Your task to perform on an android device: change the clock display to digital Image 0: 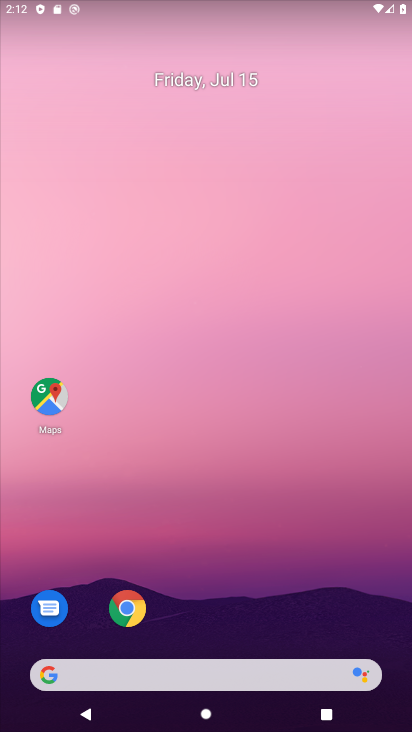
Step 0: drag from (279, 636) to (242, 0)
Your task to perform on an android device: change the clock display to digital Image 1: 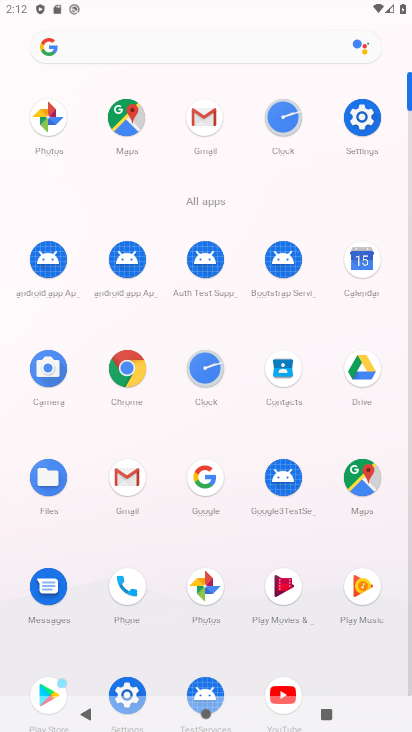
Step 1: click (281, 114)
Your task to perform on an android device: change the clock display to digital Image 2: 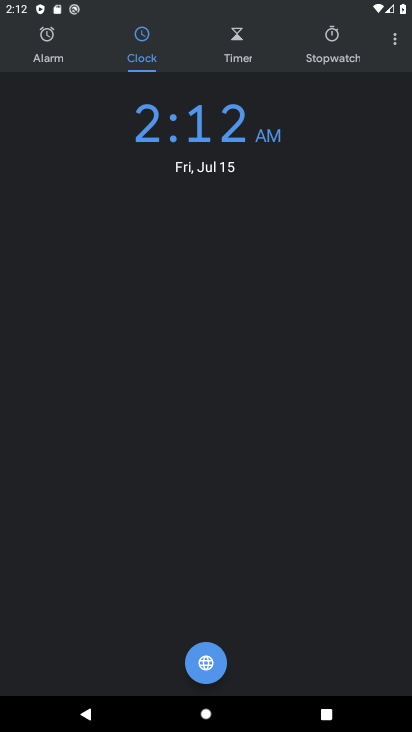
Step 2: click (387, 41)
Your task to perform on an android device: change the clock display to digital Image 3: 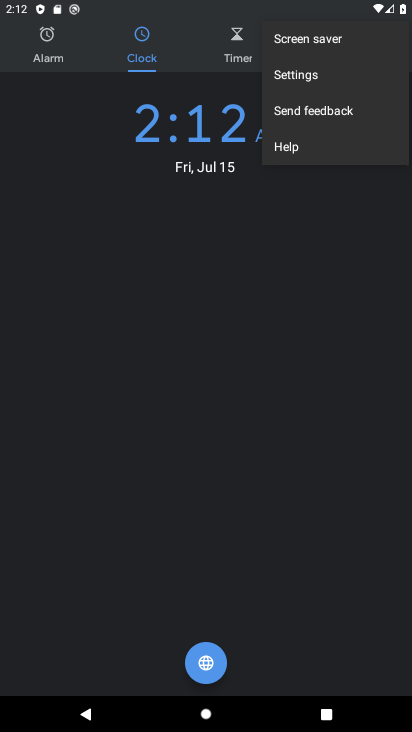
Step 3: click (333, 77)
Your task to perform on an android device: change the clock display to digital Image 4: 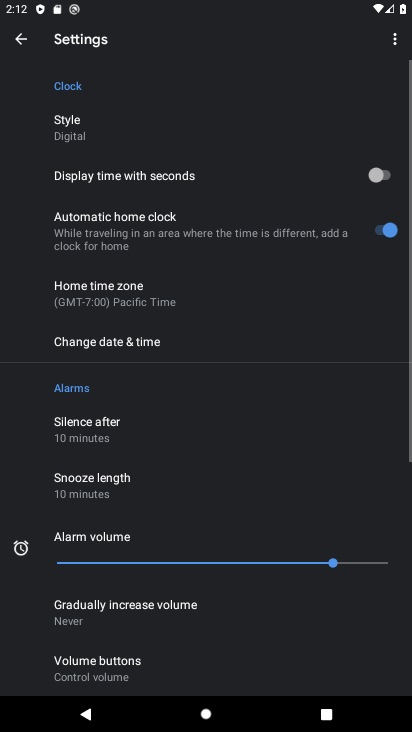
Step 4: click (206, 127)
Your task to perform on an android device: change the clock display to digital Image 5: 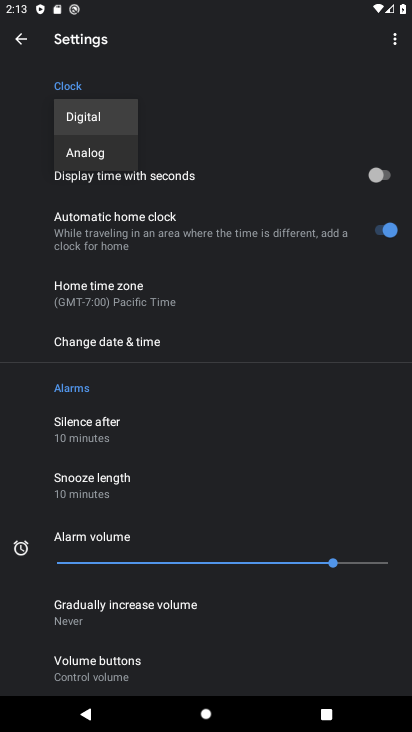
Step 5: task complete